Your task to perform on an android device: Go to Maps Image 0: 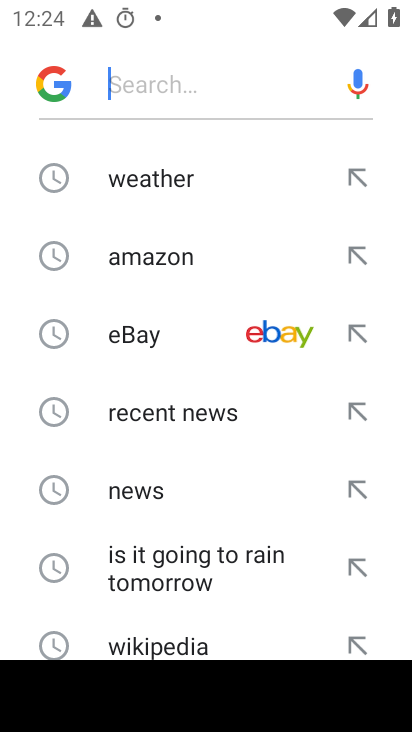
Step 0: press home button
Your task to perform on an android device: Go to Maps Image 1: 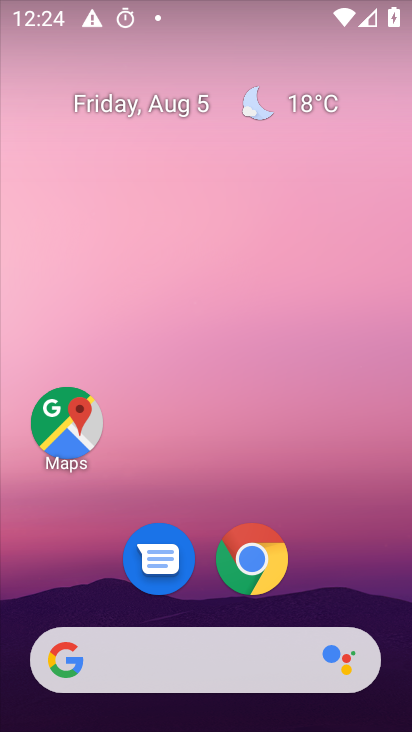
Step 1: click (94, 425)
Your task to perform on an android device: Go to Maps Image 2: 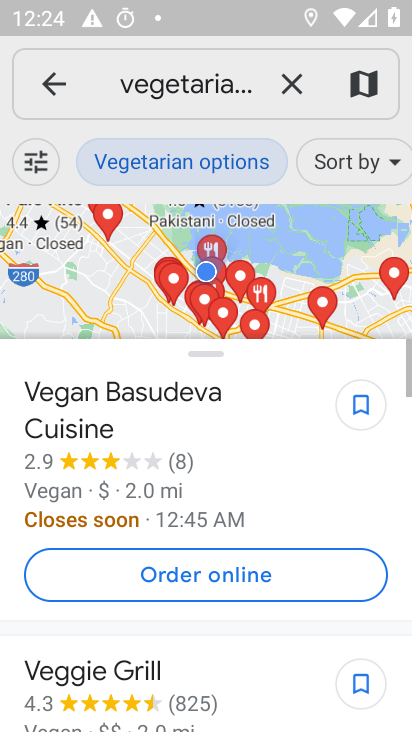
Step 2: click (59, 87)
Your task to perform on an android device: Go to Maps Image 3: 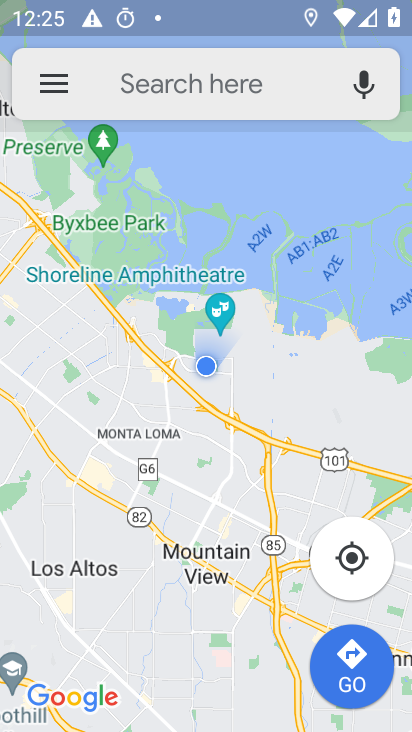
Step 3: task complete